Your task to perform on an android device: Open calendar and show me the fourth week of next month Image 0: 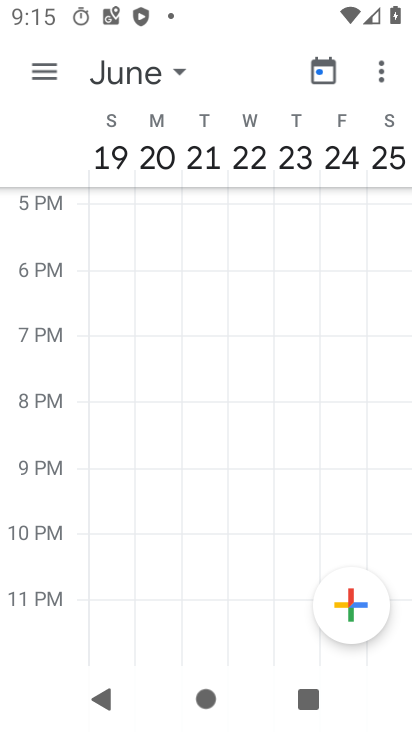
Step 0: drag from (337, 146) to (81, 255)
Your task to perform on an android device: Open calendar and show me the fourth week of next month Image 1: 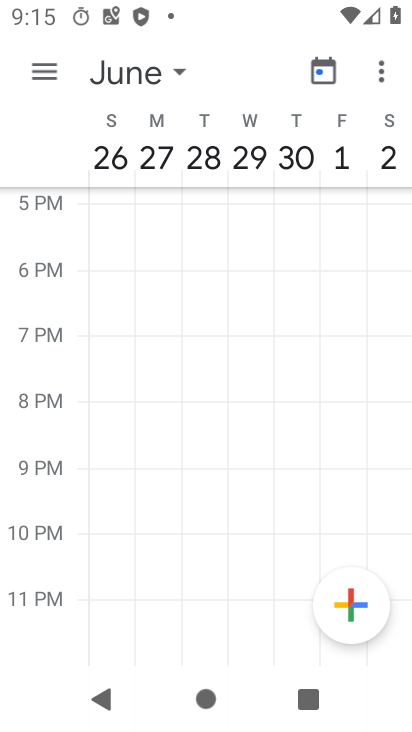
Step 1: task complete